Your task to perform on an android device: Open settings on Google Maps Image 0: 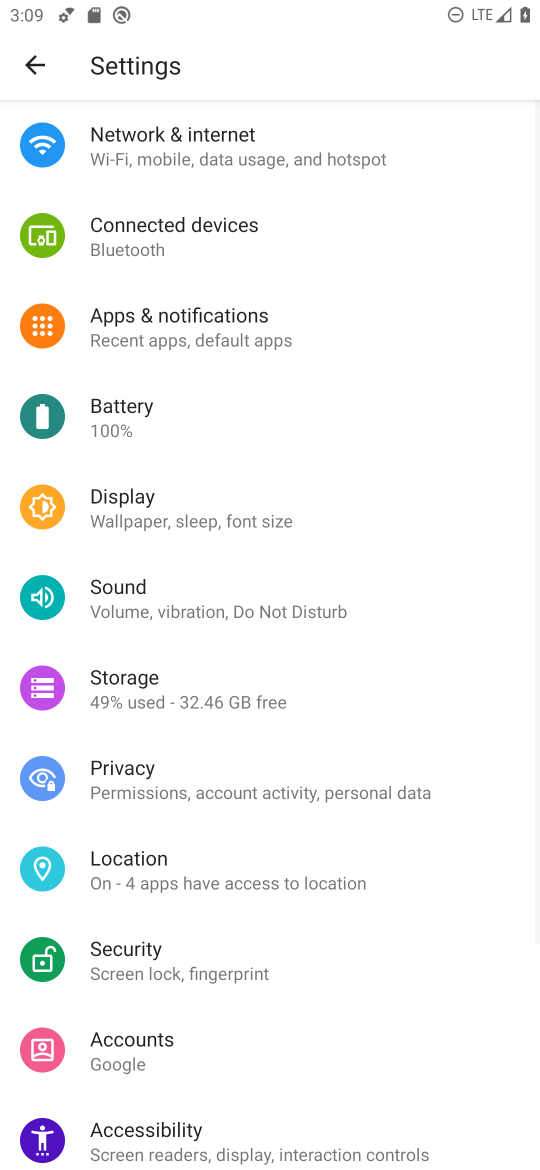
Step 0: press home button
Your task to perform on an android device: Open settings on Google Maps Image 1: 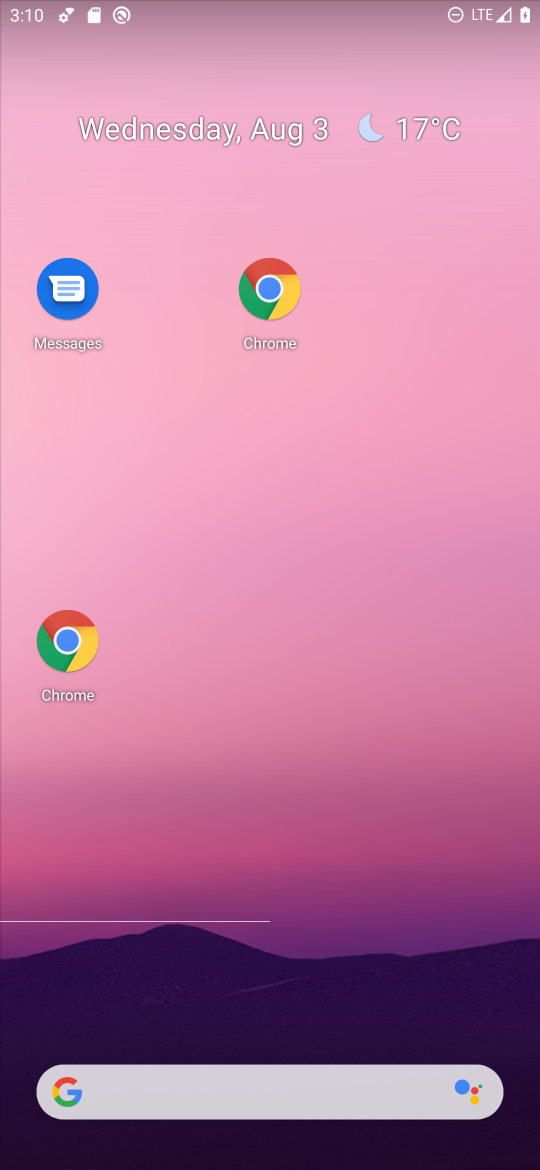
Step 1: drag from (284, 929) to (321, 120)
Your task to perform on an android device: Open settings on Google Maps Image 2: 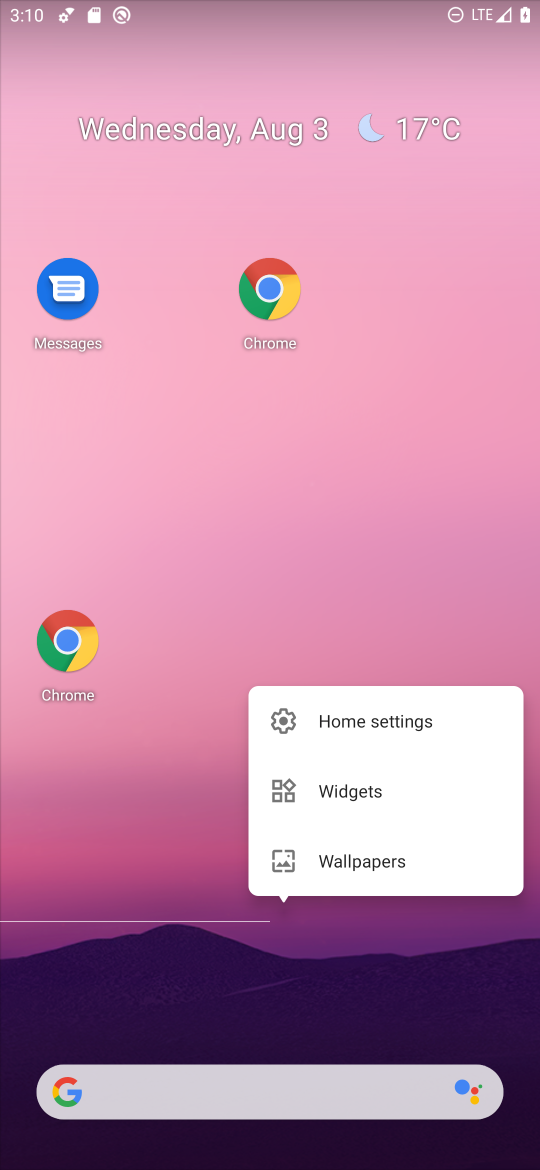
Step 2: click (243, 434)
Your task to perform on an android device: Open settings on Google Maps Image 3: 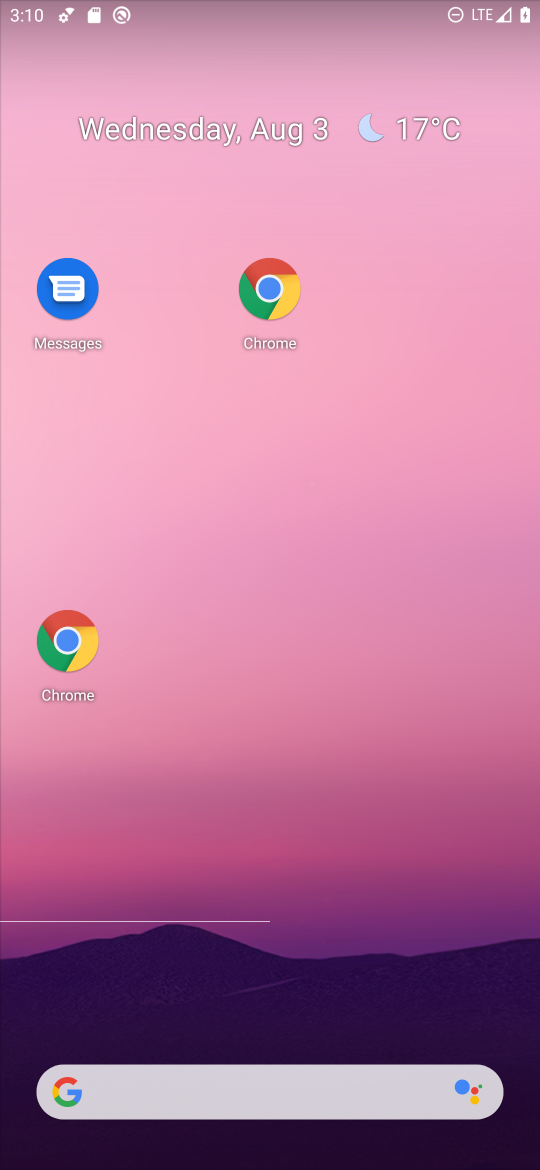
Step 3: drag from (317, 977) to (380, 135)
Your task to perform on an android device: Open settings on Google Maps Image 4: 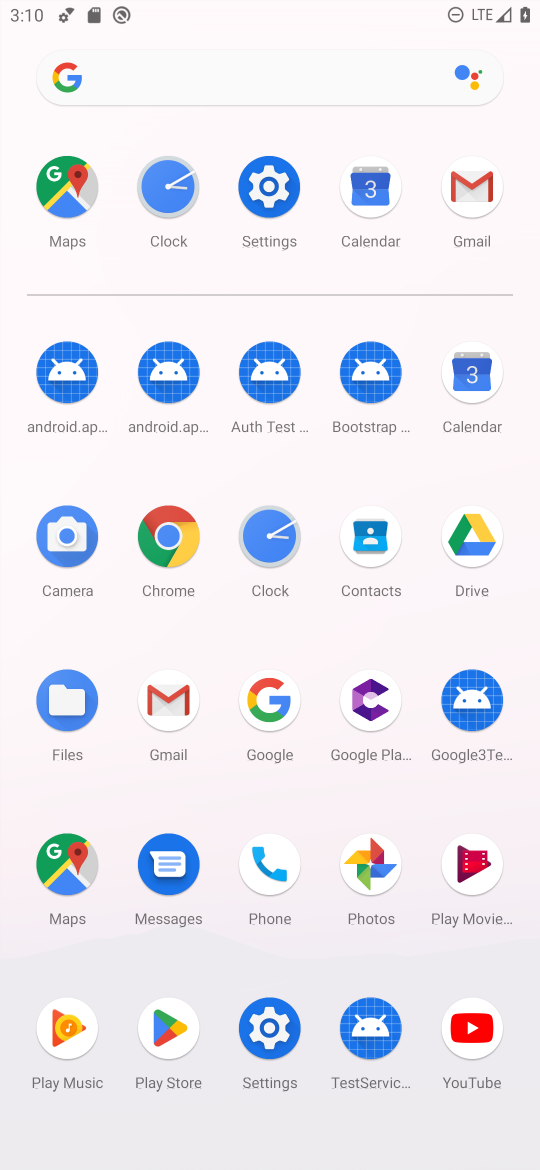
Step 4: click (166, 1020)
Your task to perform on an android device: Open settings on Google Maps Image 5: 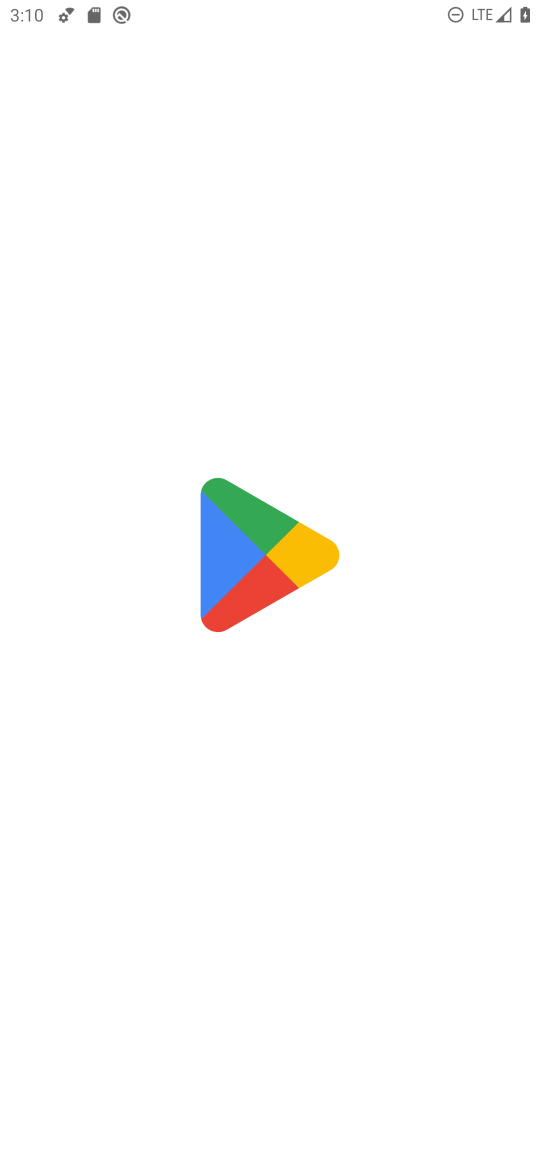
Step 5: press home button
Your task to perform on an android device: Open settings on Google Maps Image 6: 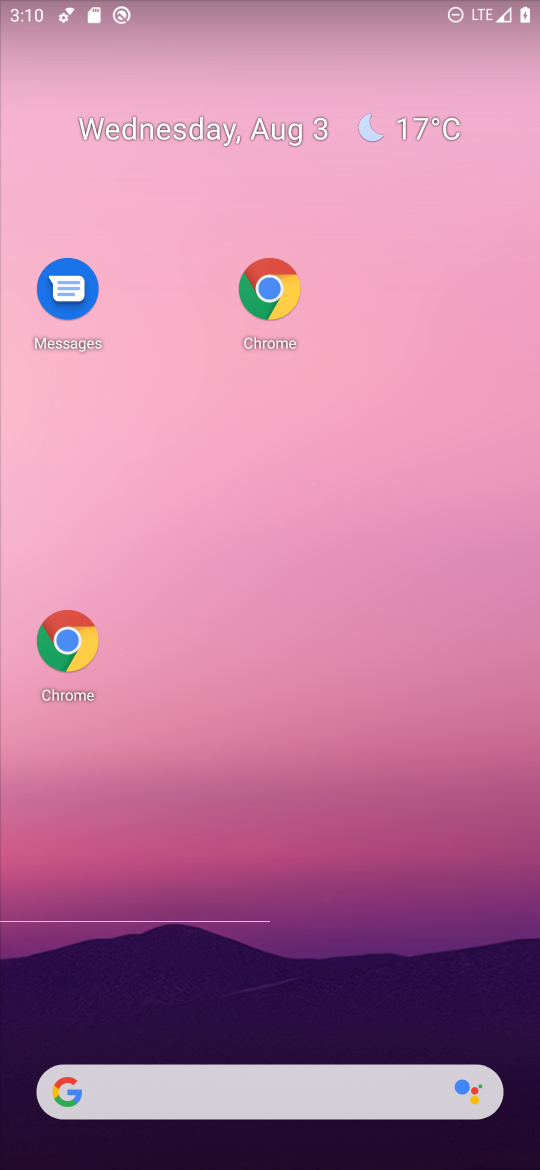
Step 6: drag from (240, 1010) to (227, 261)
Your task to perform on an android device: Open settings on Google Maps Image 7: 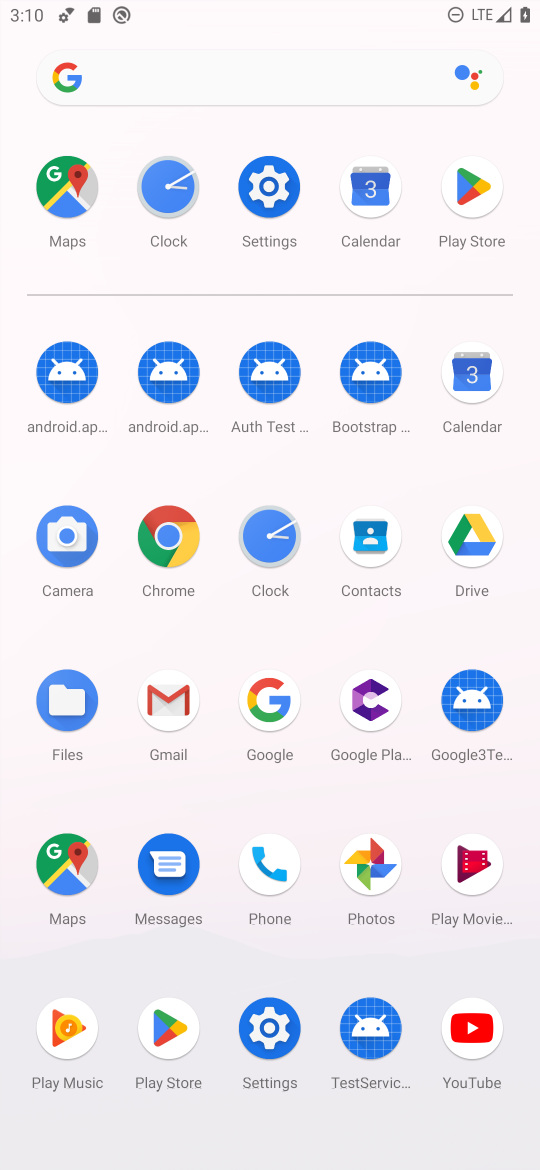
Step 7: click (100, 878)
Your task to perform on an android device: Open settings on Google Maps Image 8: 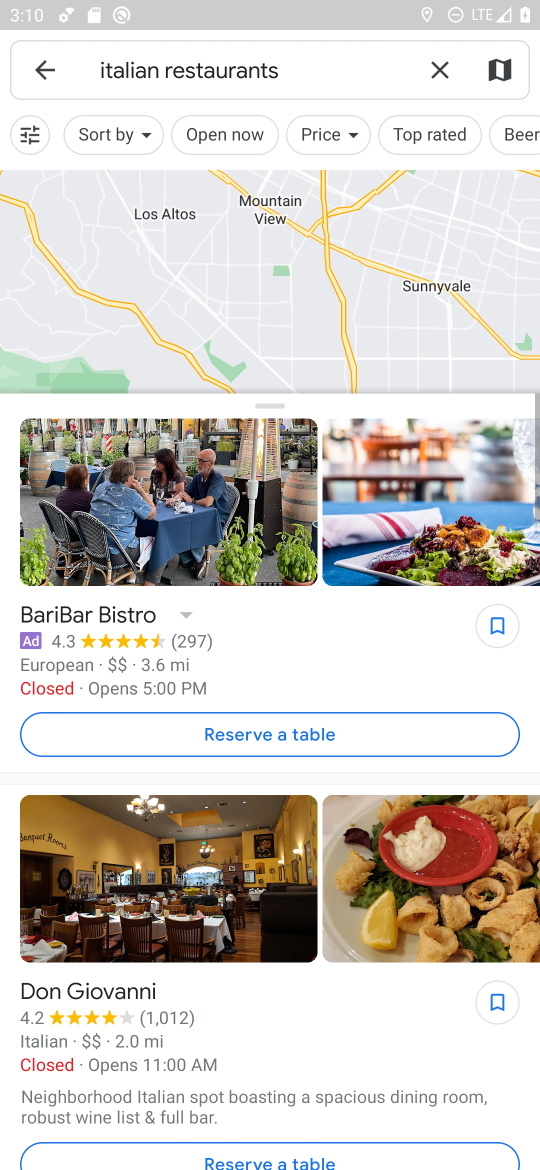
Step 8: task complete